Your task to perform on an android device: Go to Yahoo.com Image 0: 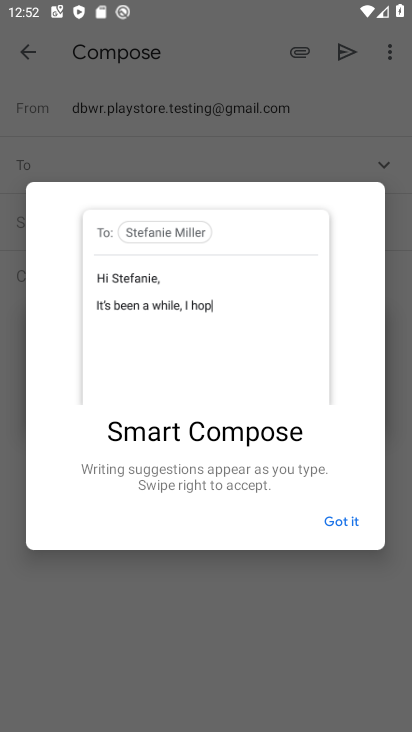
Step 0: press home button
Your task to perform on an android device: Go to Yahoo.com Image 1: 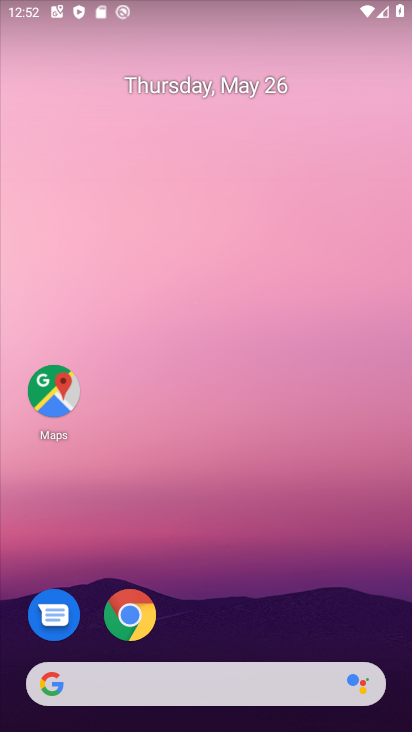
Step 1: click (140, 613)
Your task to perform on an android device: Go to Yahoo.com Image 2: 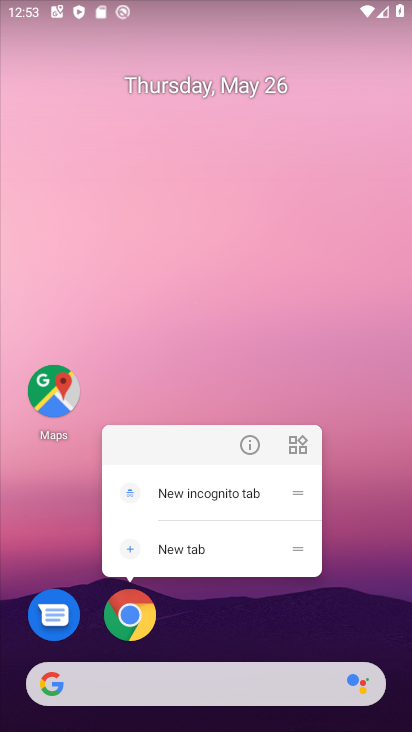
Step 2: click (127, 623)
Your task to perform on an android device: Go to Yahoo.com Image 3: 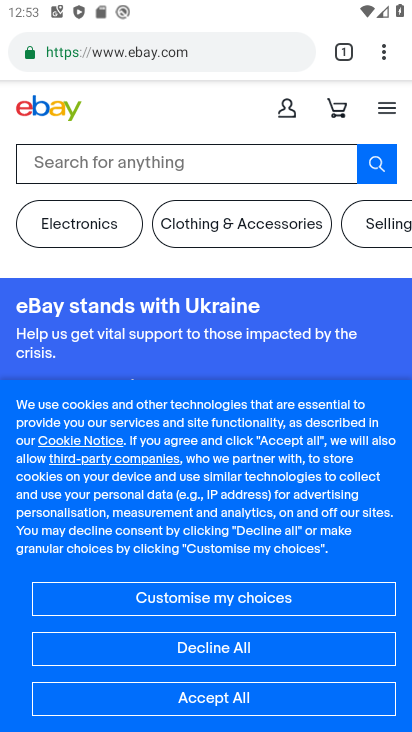
Step 3: click (344, 46)
Your task to perform on an android device: Go to Yahoo.com Image 4: 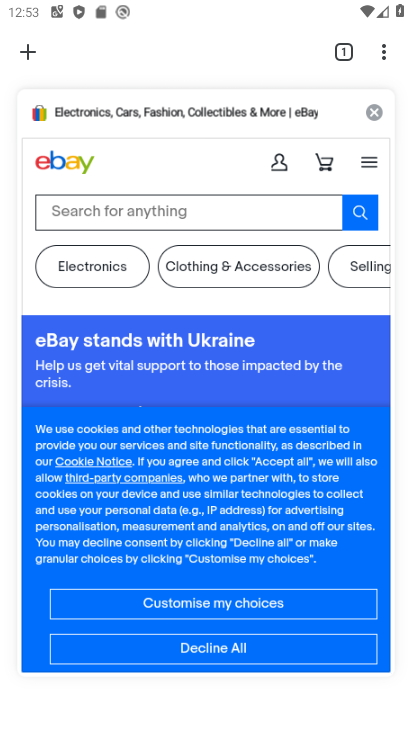
Step 4: click (23, 43)
Your task to perform on an android device: Go to Yahoo.com Image 5: 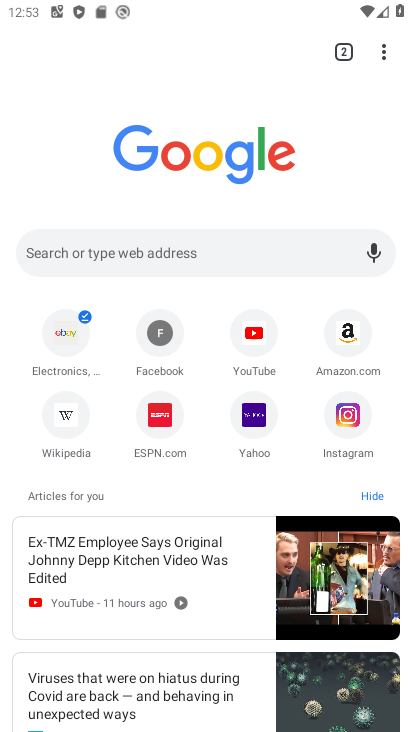
Step 5: click (256, 418)
Your task to perform on an android device: Go to Yahoo.com Image 6: 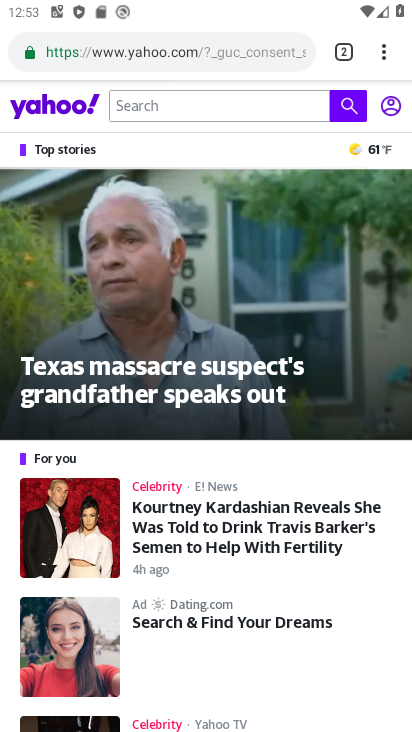
Step 6: task complete